Your task to perform on an android device: Search for "panasonic triple a" on newegg, select the first entry, add it to the cart, then select checkout. Image 0: 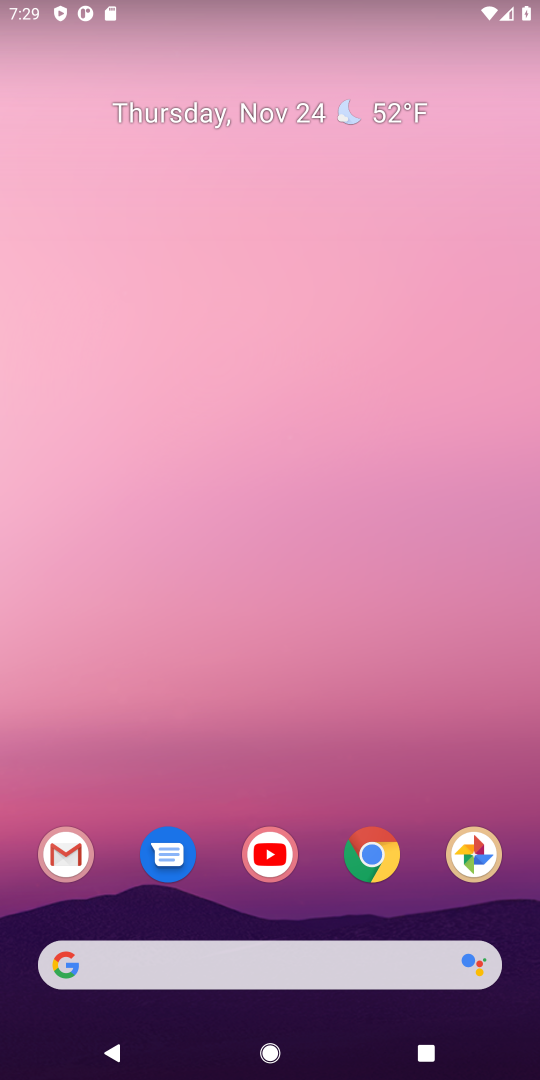
Step 0: click (354, 854)
Your task to perform on an android device: Search for "panasonic triple a" on newegg, select the first entry, add it to the cart, then select checkout. Image 1: 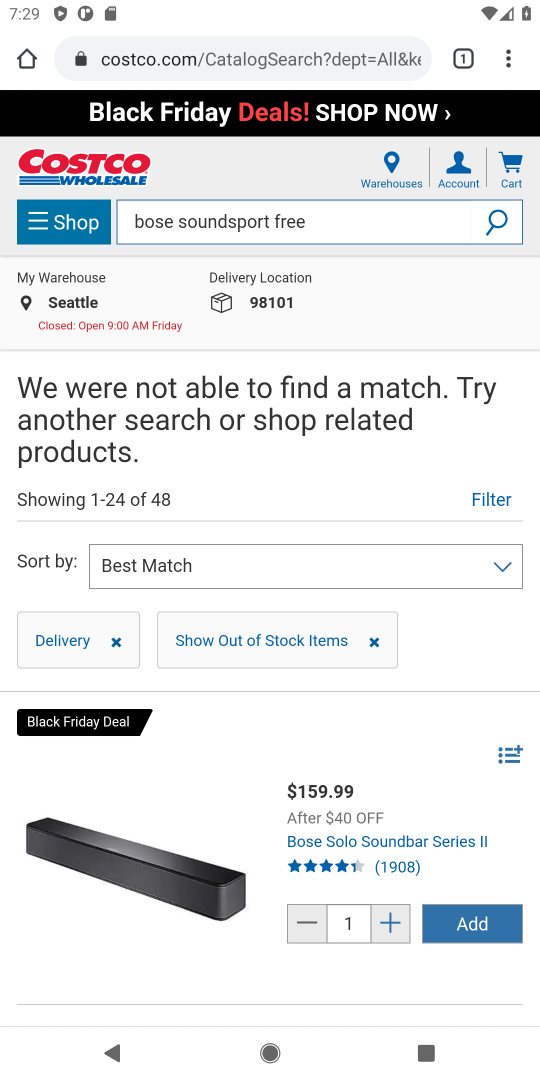
Step 1: click (233, 62)
Your task to perform on an android device: Search for "panasonic triple a" on newegg, select the first entry, add it to the cart, then select checkout. Image 2: 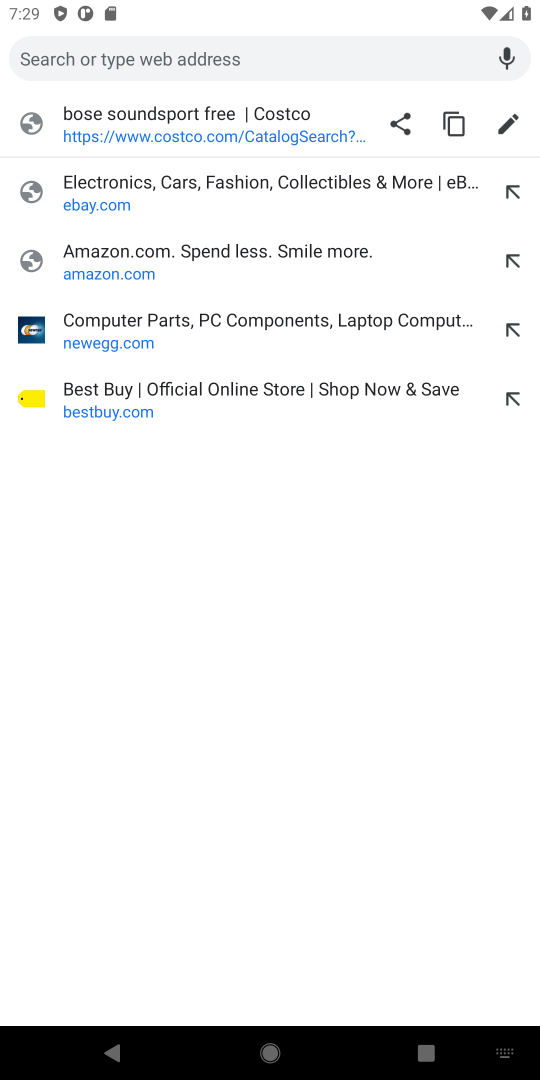
Step 2: click (95, 336)
Your task to perform on an android device: Search for "panasonic triple a" on newegg, select the first entry, add it to the cart, then select checkout. Image 3: 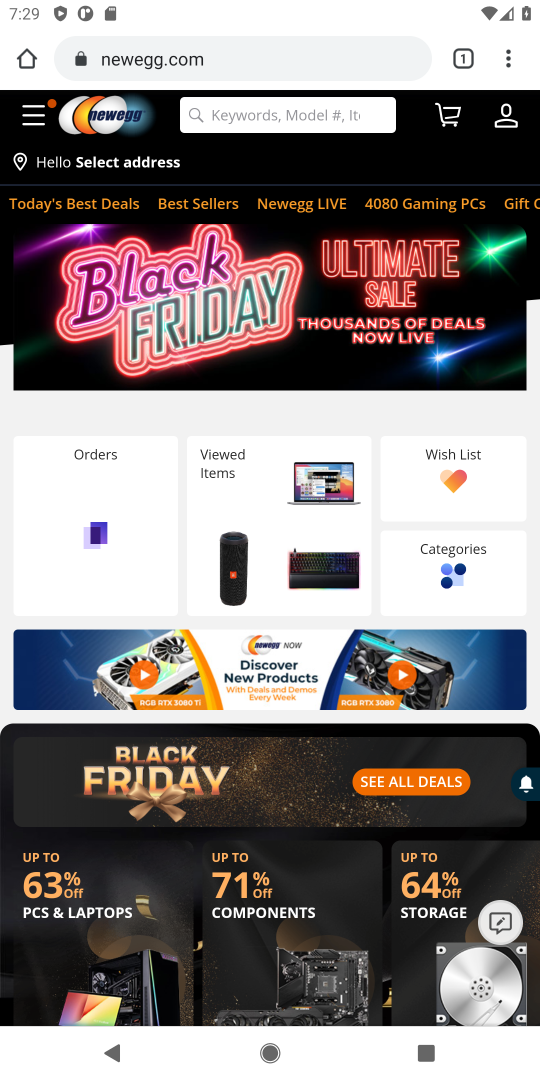
Step 3: click (252, 123)
Your task to perform on an android device: Search for "panasonic triple a" on newegg, select the first entry, add it to the cart, then select checkout. Image 4: 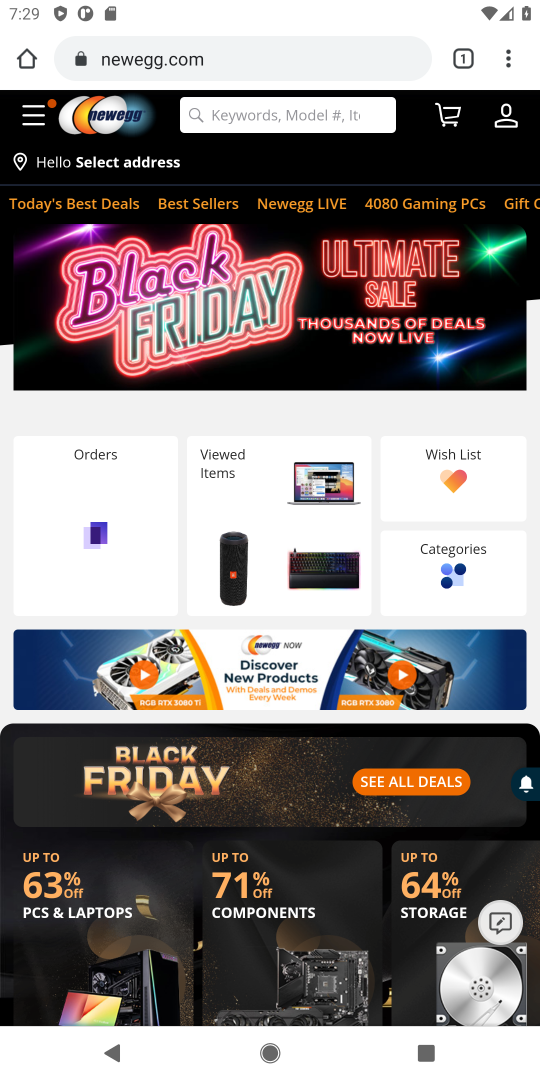
Step 4: click (250, 119)
Your task to perform on an android device: Search for "panasonic triple a" on newegg, select the first entry, add it to the cart, then select checkout. Image 5: 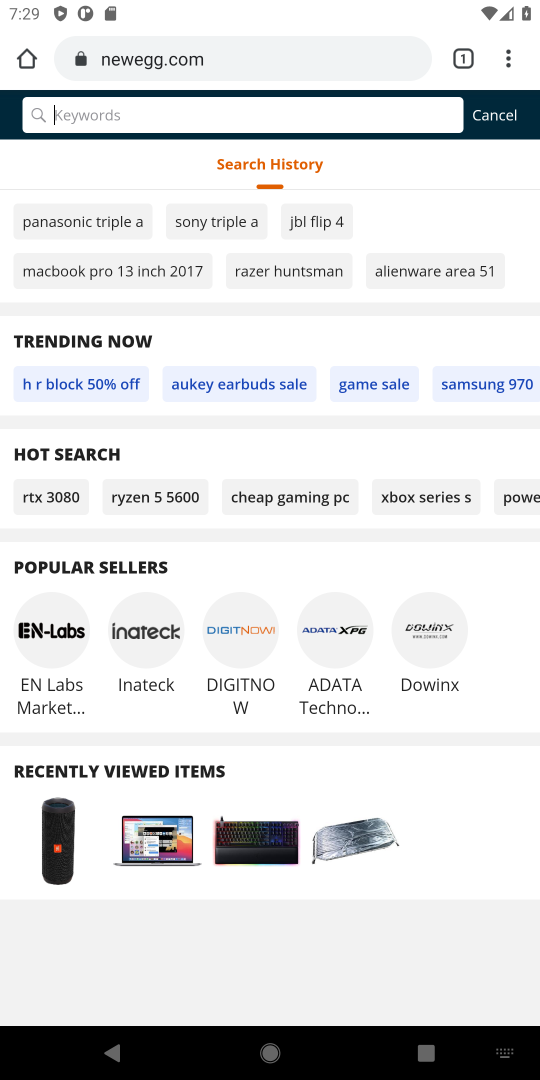
Step 5: type "panasonic triple a"
Your task to perform on an android device: Search for "panasonic triple a" on newegg, select the first entry, add it to the cart, then select checkout. Image 6: 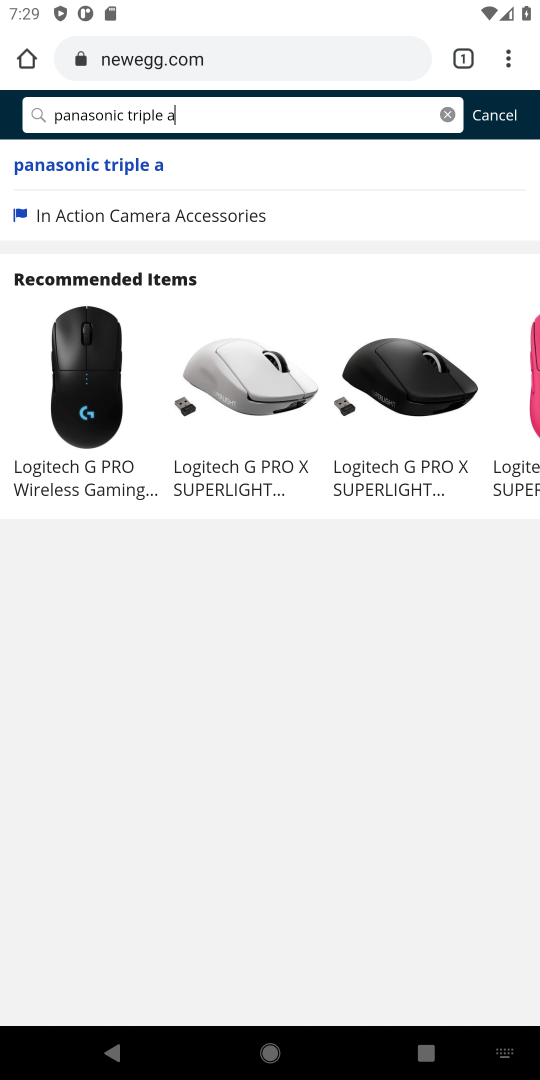
Step 6: click (101, 176)
Your task to perform on an android device: Search for "panasonic triple a" on newegg, select the first entry, add it to the cart, then select checkout. Image 7: 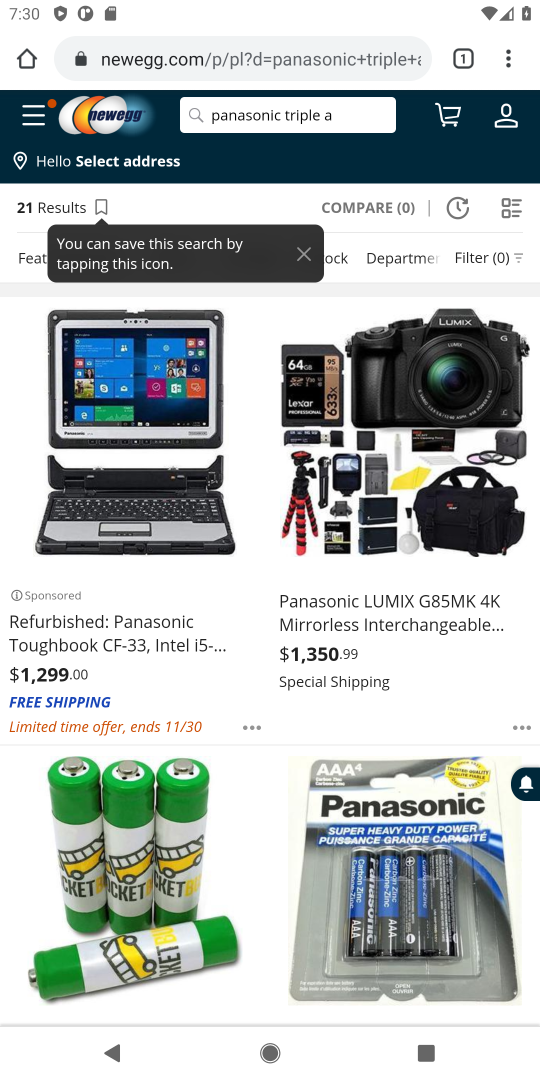
Step 7: task complete